Your task to perform on an android device: Turn off the flashlight Image 0: 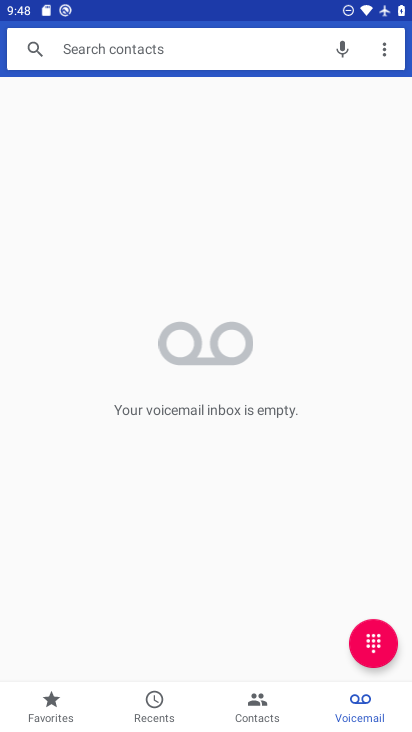
Step 0: press home button
Your task to perform on an android device: Turn off the flashlight Image 1: 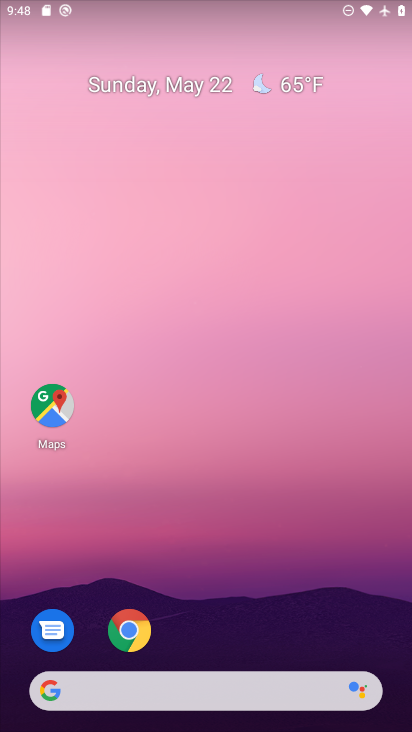
Step 1: task complete